Your task to perform on an android device: see creations saved in the google photos Image 0: 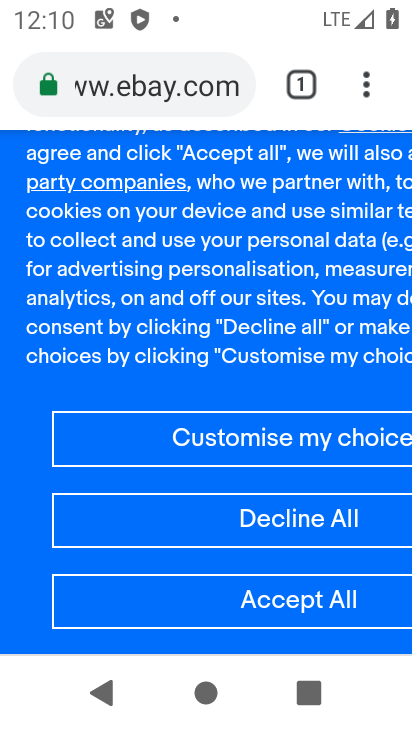
Step 0: press home button
Your task to perform on an android device: see creations saved in the google photos Image 1: 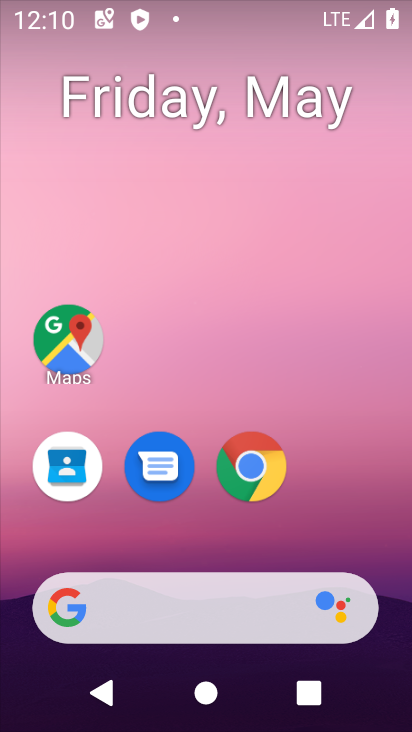
Step 1: drag from (215, 546) to (213, 160)
Your task to perform on an android device: see creations saved in the google photos Image 2: 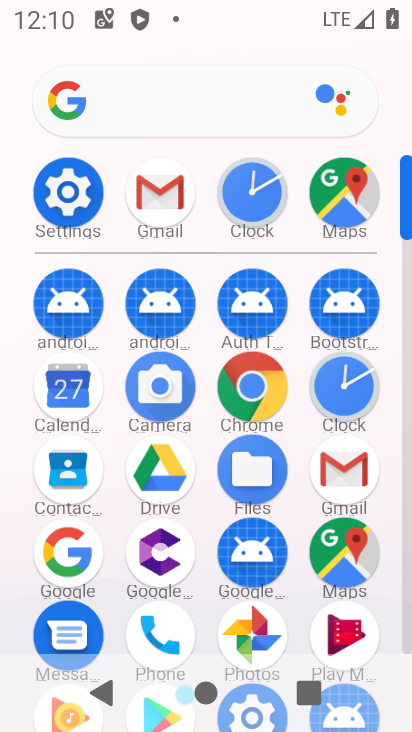
Step 2: click (254, 638)
Your task to perform on an android device: see creations saved in the google photos Image 3: 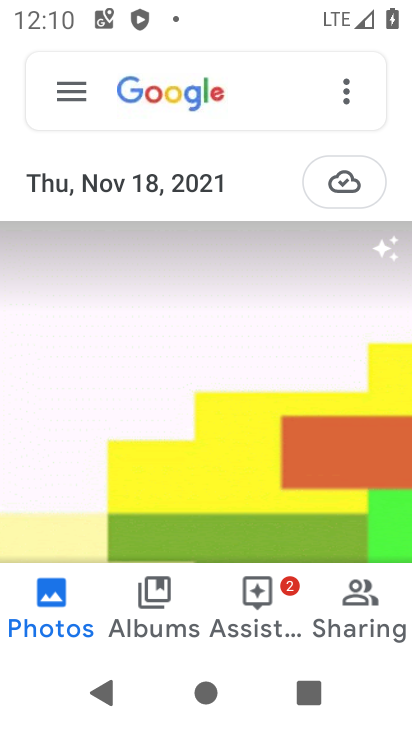
Step 3: click (202, 96)
Your task to perform on an android device: see creations saved in the google photos Image 4: 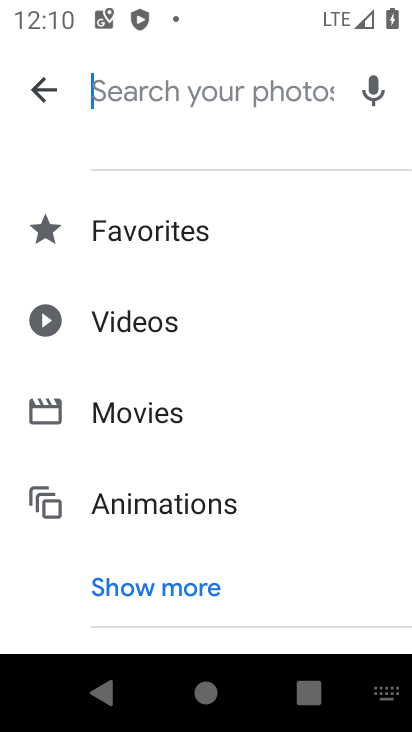
Step 4: click (161, 592)
Your task to perform on an android device: see creations saved in the google photos Image 5: 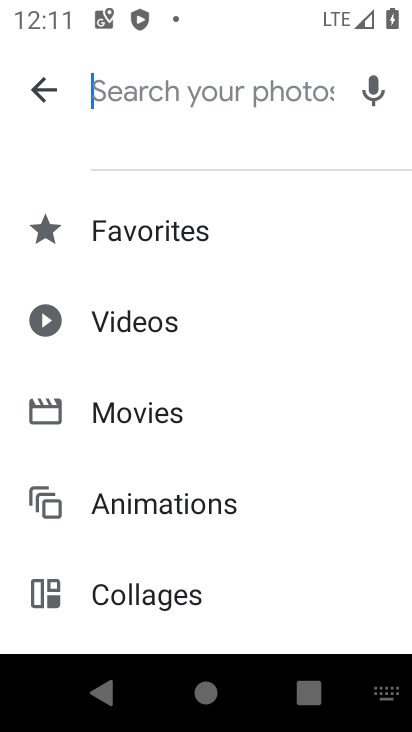
Step 5: drag from (192, 539) to (167, 242)
Your task to perform on an android device: see creations saved in the google photos Image 6: 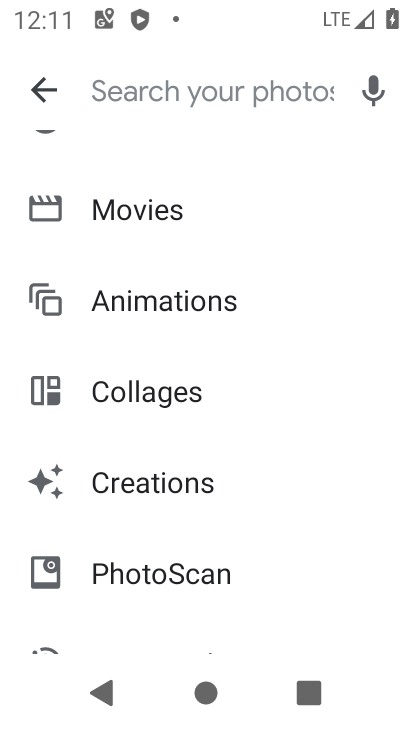
Step 6: click (140, 492)
Your task to perform on an android device: see creations saved in the google photos Image 7: 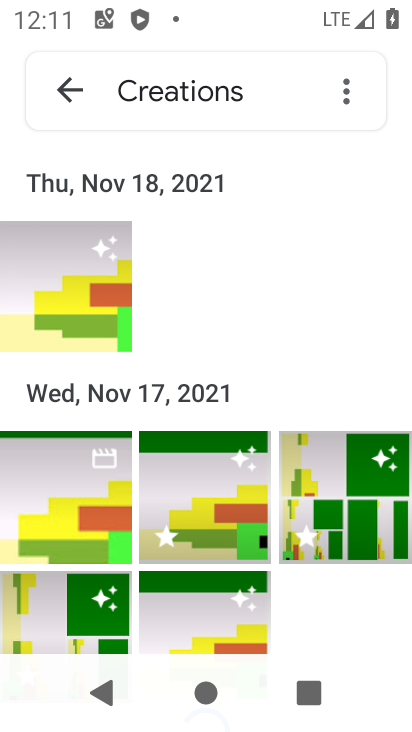
Step 7: task complete